Your task to perform on an android device: change alarm snooze length Image 0: 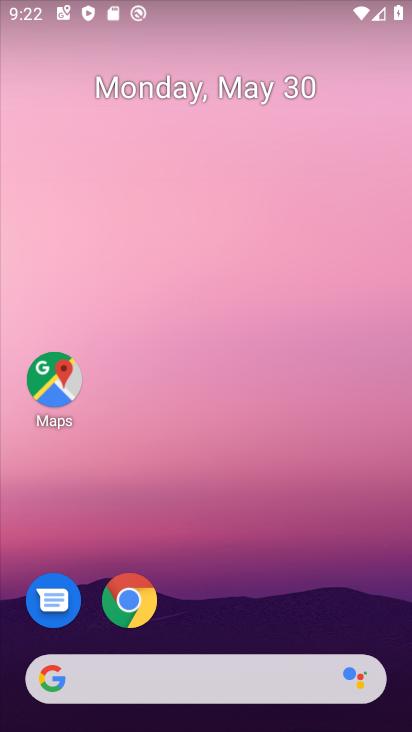
Step 0: drag from (259, 634) to (254, 118)
Your task to perform on an android device: change alarm snooze length Image 1: 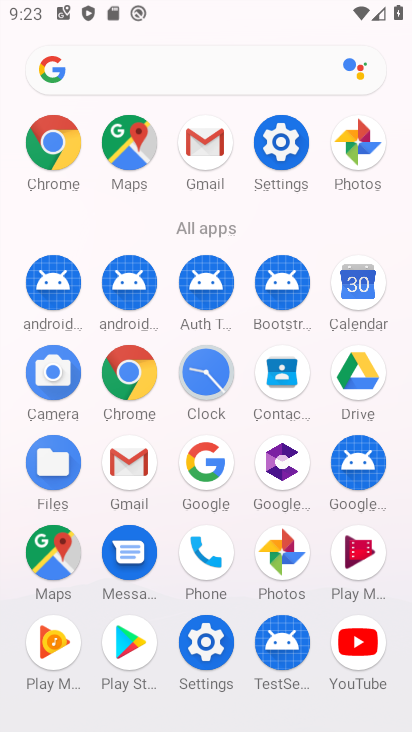
Step 1: click (203, 382)
Your task to perform on an android device: change alarm snooze length Image 2: 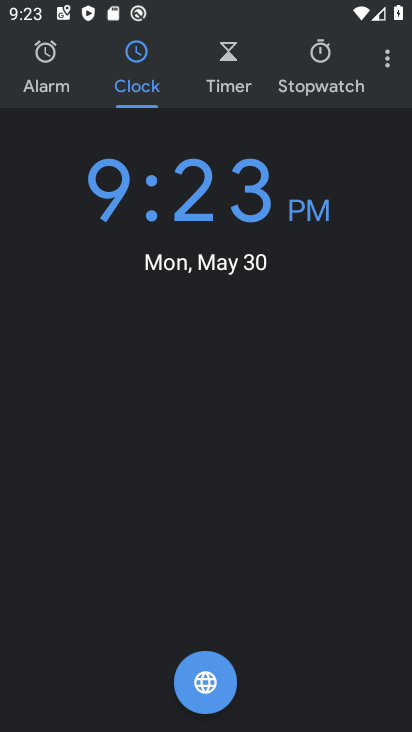
Step 2: click (394, 72)
Your task to perform on an android device: change alarm snooze length Image 3: 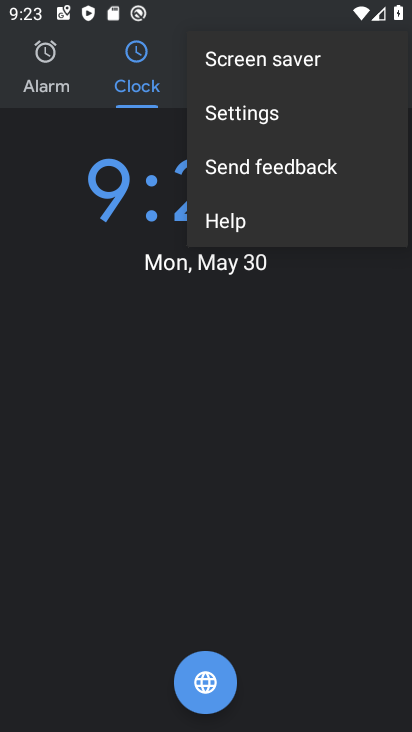
Step 3: click (252, 119)
Your task to perform on an android device: change alarm snooze length Image 4: 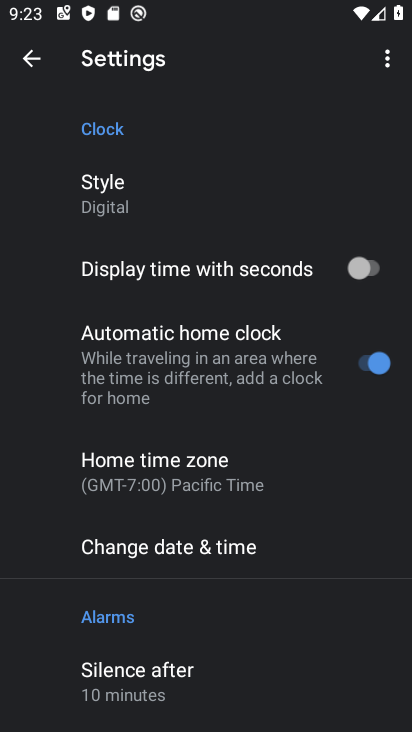
Step 4: drag from (289, 493) to (289, 200)
Your task to perform on an android device: change alarm snooze length Image 5: 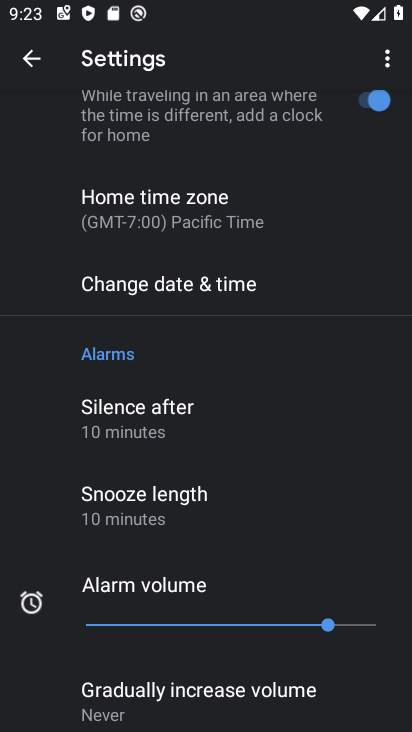
Step 5: click (144, 505)
Your task to perform on an android device: change alarm snooze length Image 6: 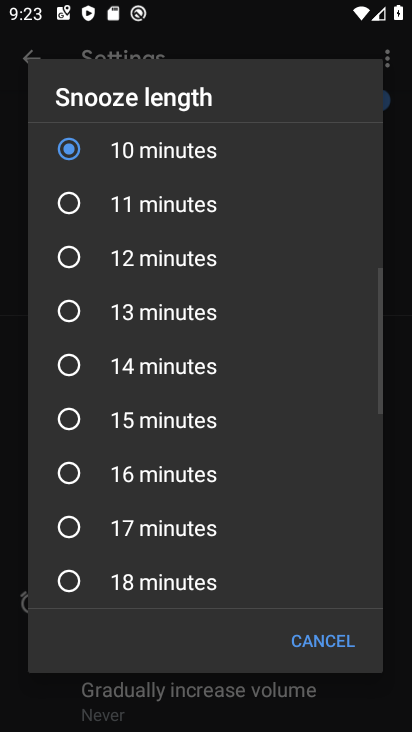
Step 6: click (75, 218)
Your task to perform on an android device: change alarm snooze length Image 7: 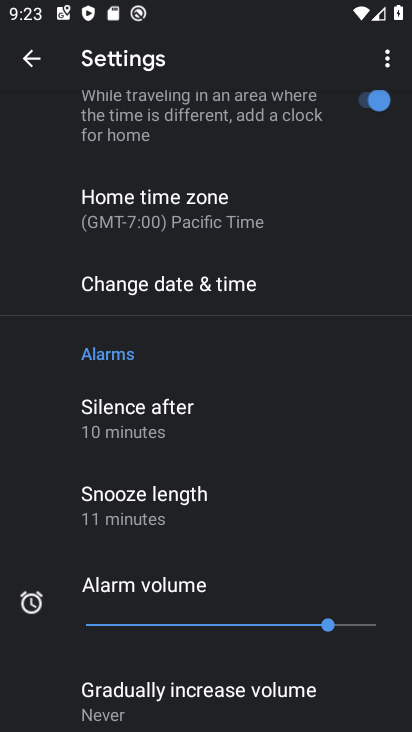
Step 7: task complete